Your task to perform on an android device: Go to wifi settings Image 0: 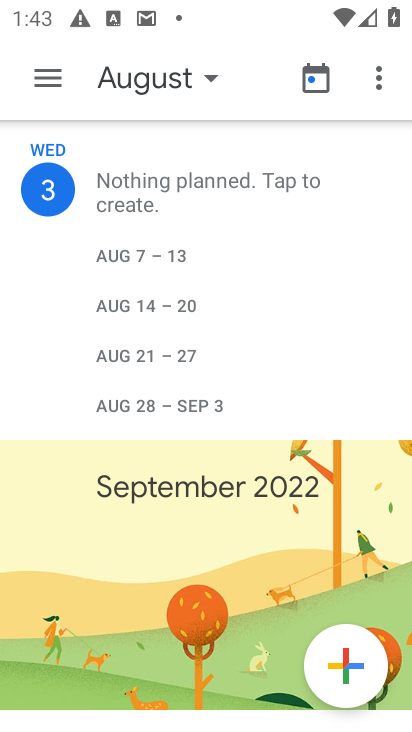
Step 0: press home button
Your task to perform on an android device: Go to wifi settings Image 1: 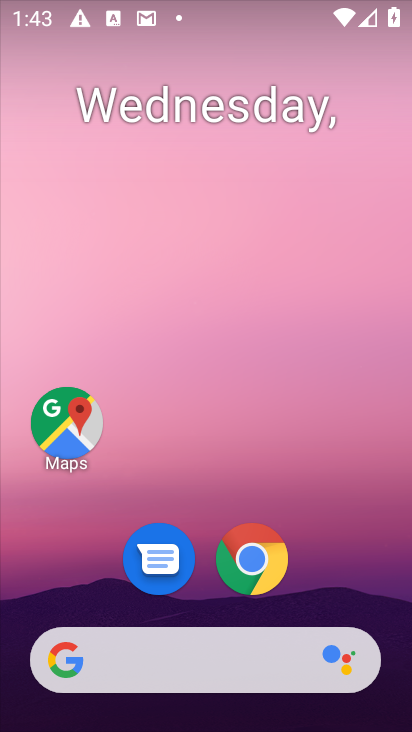
Step 1: drag from (255, 615) to (322, 172)
Your task to perform on an android device: Go to wifi settings Image 2: 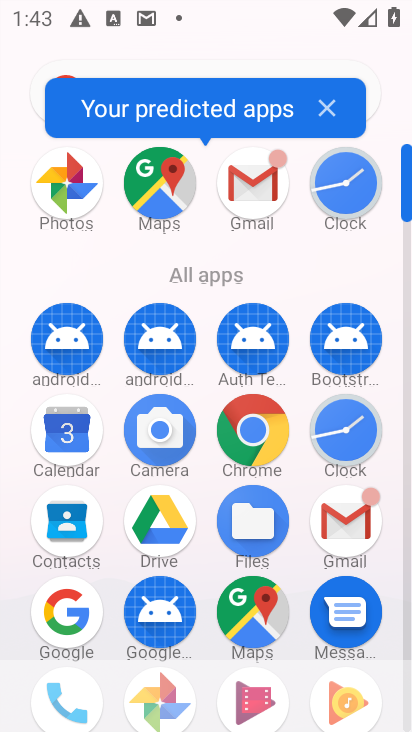
Step 2: drag from (107, 551) to (153, 308)
Your task to perform on an android device: Go to wifi settings Image 3: 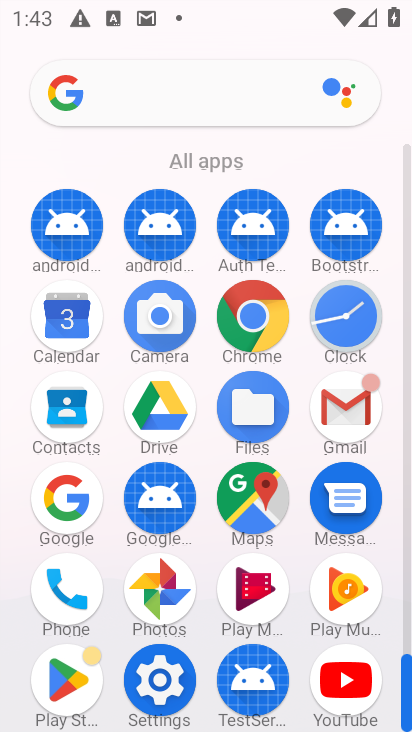
Step 3: drag from (144, 668) to (340, 554)
Your task to perform on an android device: Go to wifi settings Image 4: 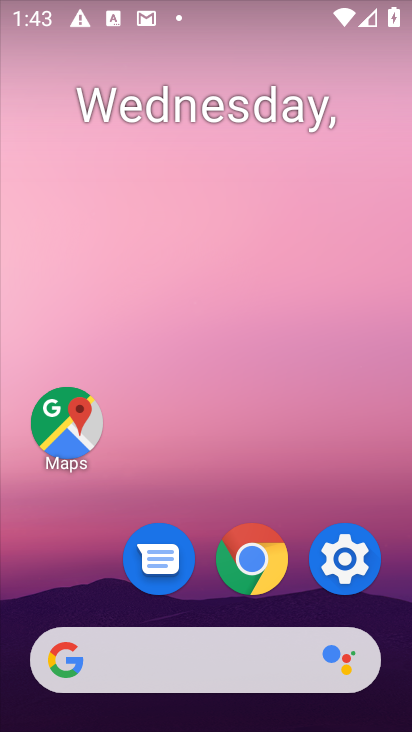
Step 4: click (359, 551)
Your task to perform on an android device: Go to wifi settings Image 5: 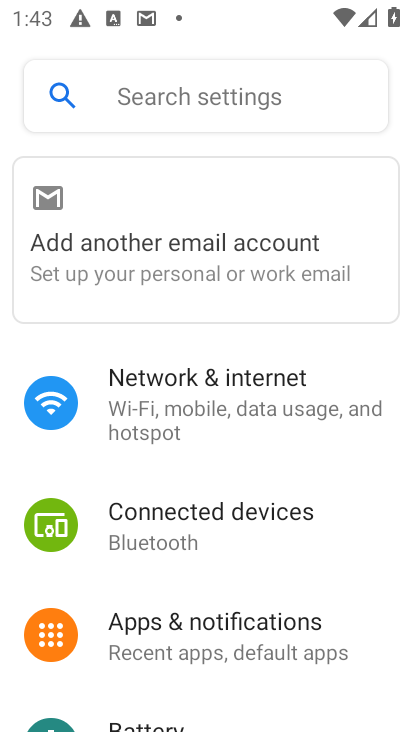
Step 5: click (154, 221)
Your task to perform on an android device: Go to wifi settings Image 6: 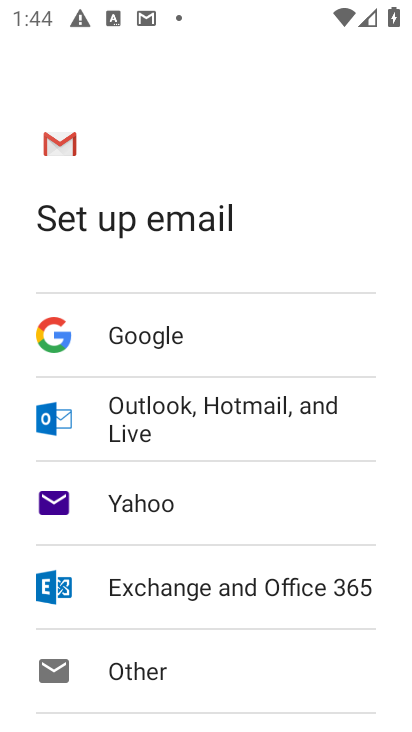
Step 6: press back button
Your task to perform on an android device: Go to wifi settings Image 7: 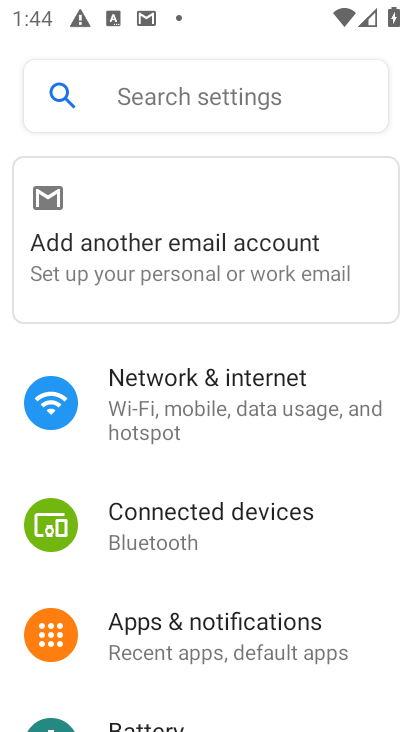
Step 7: click (223, 254)
Your task to perform on an android device: Go to wifi settings Image 8: 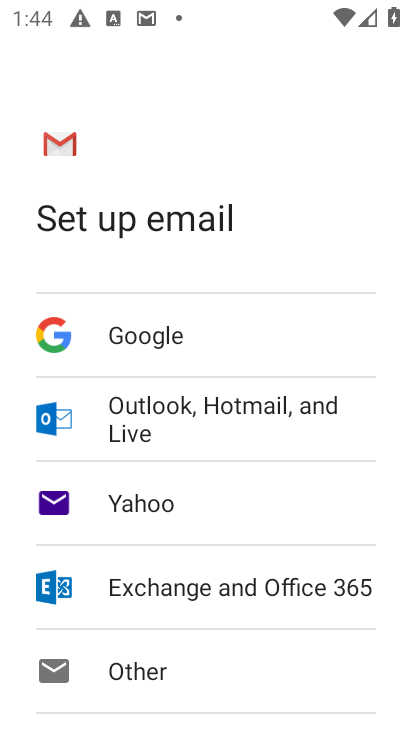
Step 8: press back button
Your task to perform on an android device: Go to wifi settings Image 9: 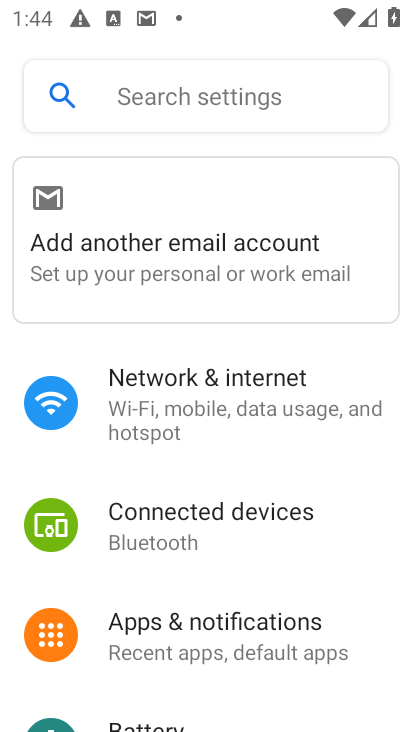
Step 9: click (161, 408)
Your task to perform on an android device: Go to wifi settings Image 10: 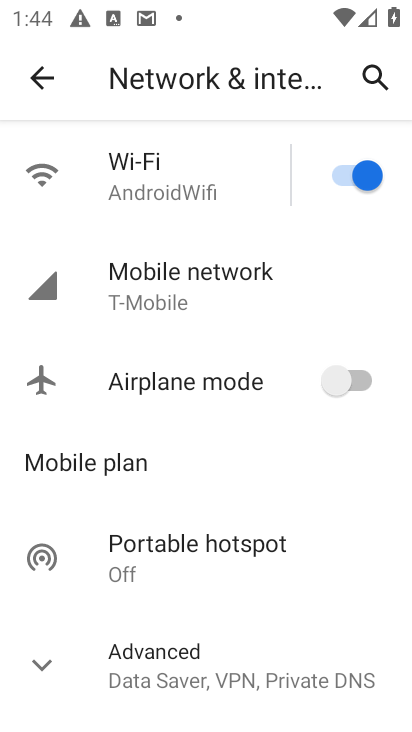
Step 10: click (173, 167)
Your task to perform on an android device: Go to wifi settings Image 11: 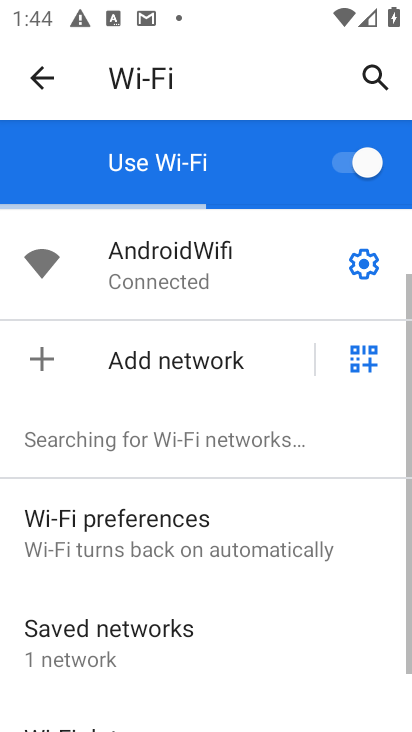
Step 11: task complete